Your task to perform on an android device: see tabs open on other devices in the chrome app Image 0: 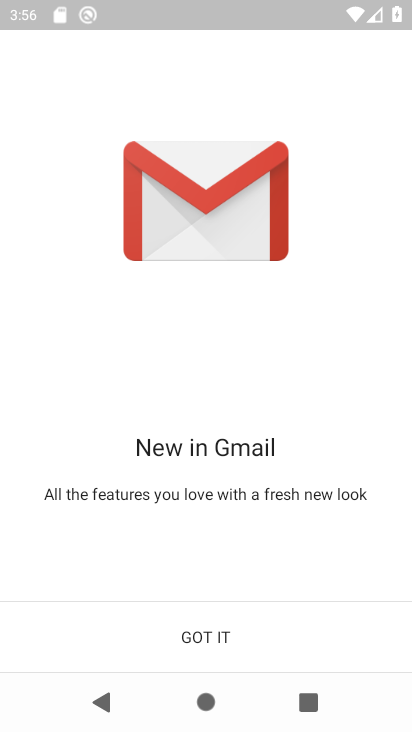
Step 0: press home button
Your task to perform on an android device: see tabs open on other devices in the chrome app Image 1: 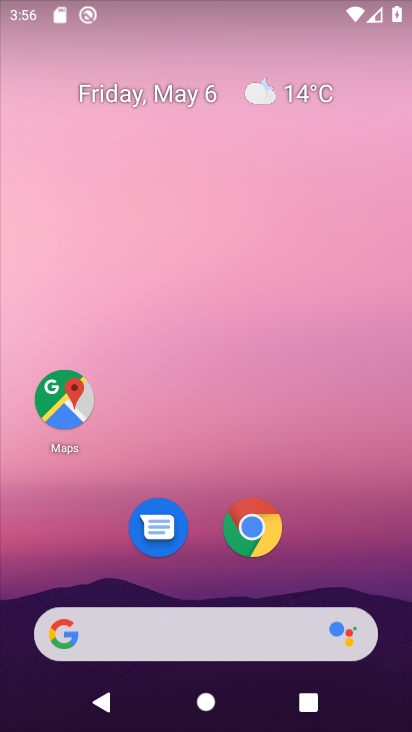
Step 1: click (251, 530)
Your task to perform on an android device: see tabs open on other devices in the chrome app Image 2: 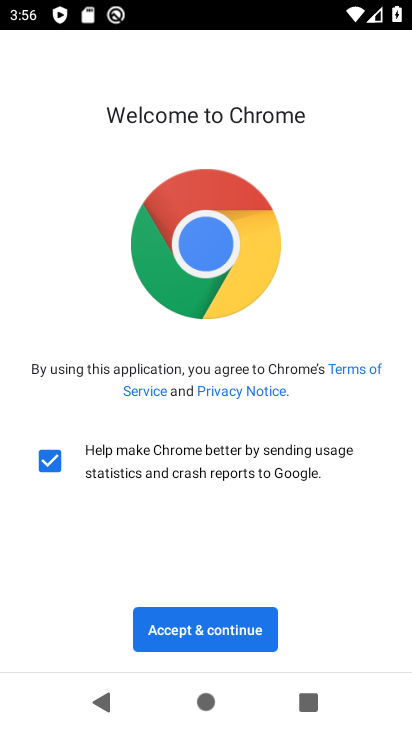
Step 2: click (177, 617)
Your task to perform on an android device: see tabs open on other devices in the chrome app Image 3: 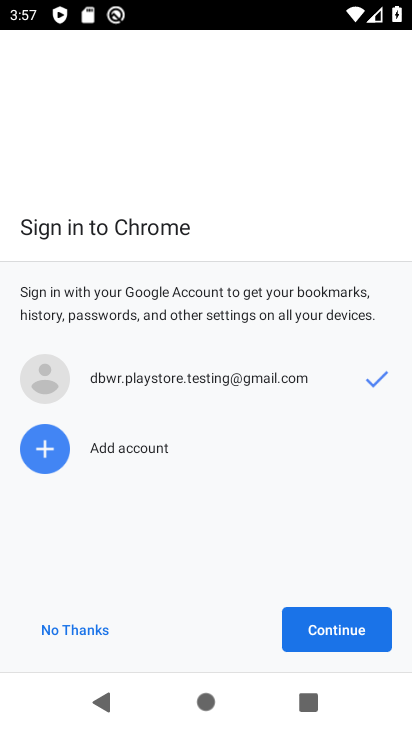
Step 3: click (353, 619)
Your task to perform on an android device: see tabs open on other devices in the chrome app Image 4: 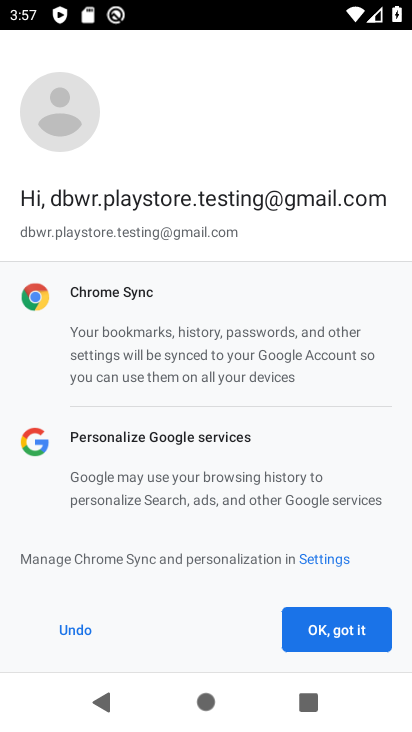
Step 4: click (353, 619)
Your task to perform on an android device: see tabs open on other devices in the chrome app Image 5: 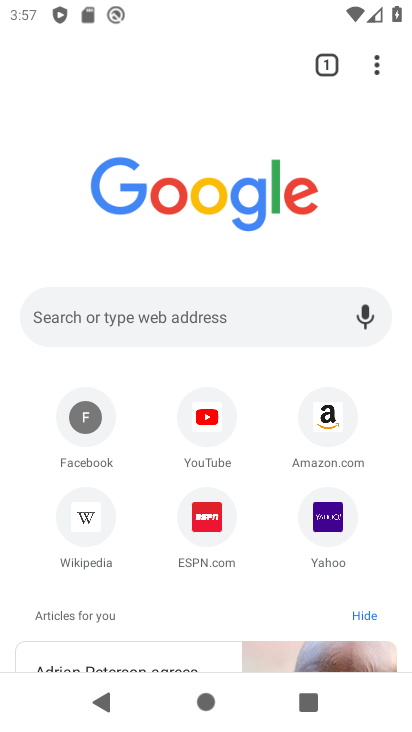
Step 5: click (377, 71)
Your task to perform on an android device: see tabs open on other devices in the chrome app Image 6: 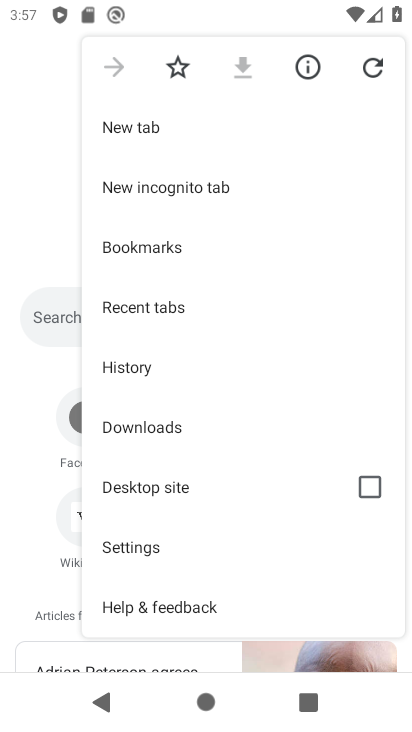
Step 6: click (162, 304)
Your task to perform on an android device: see tabs open on other devices in the chrome app Image 7: 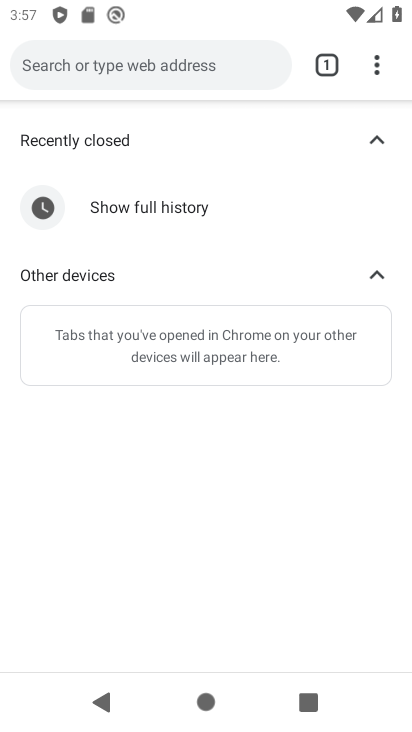
Step 7: task complete